Your task to perform on an android device: change your default location settings in chrome Image 0: 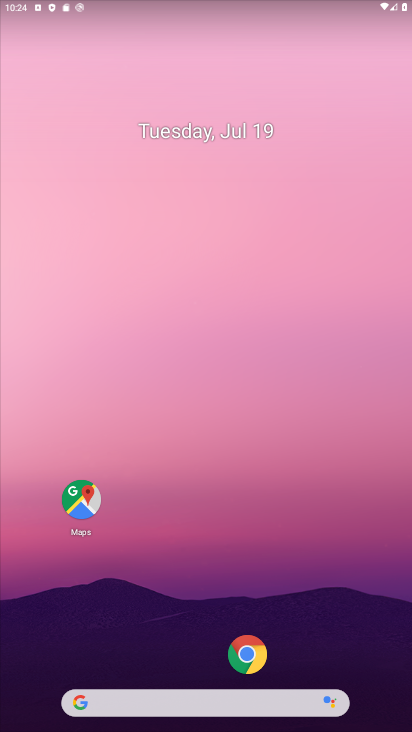
Step 0: click (244, 645)
Your task to perform on an android device: change your default location settings in chrome Image 1: 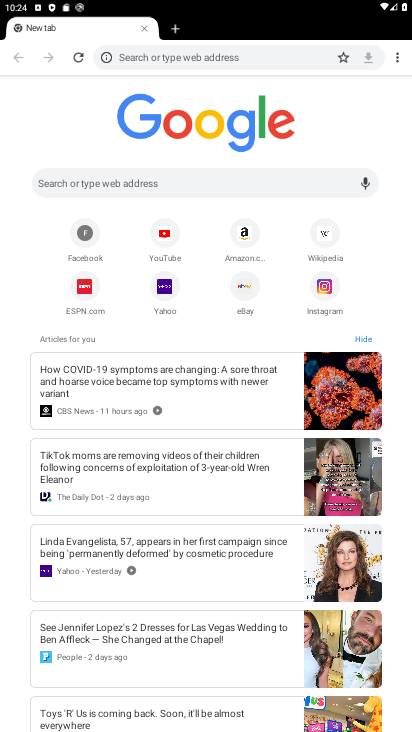
Step 1: click (401, 52)
Your task to perform on an android device: change your default location settings in chrome Image 2: 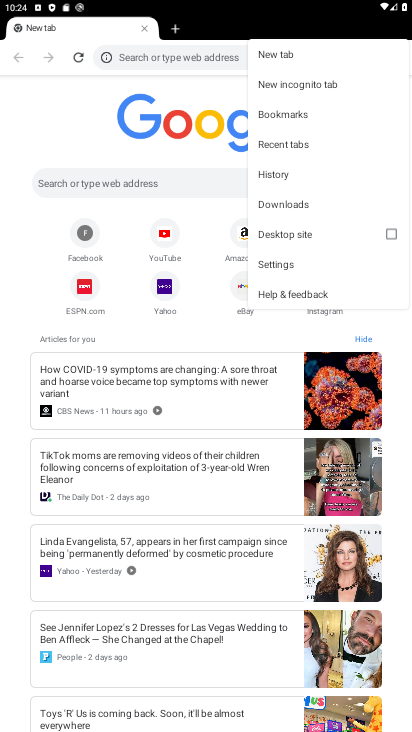
Step 2: click (288, 258)
Your task to perform on an android device: change your default location settings in chrome Image 3: 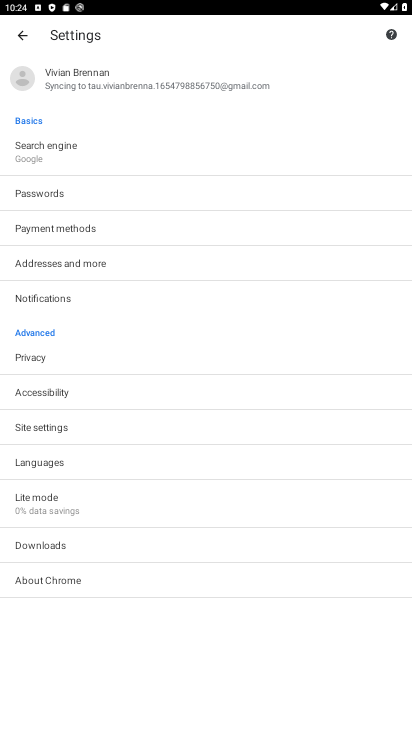
Step 3: click (31, 432)
Your task to perform on an android device: change your default location settings in chrome Image 4: 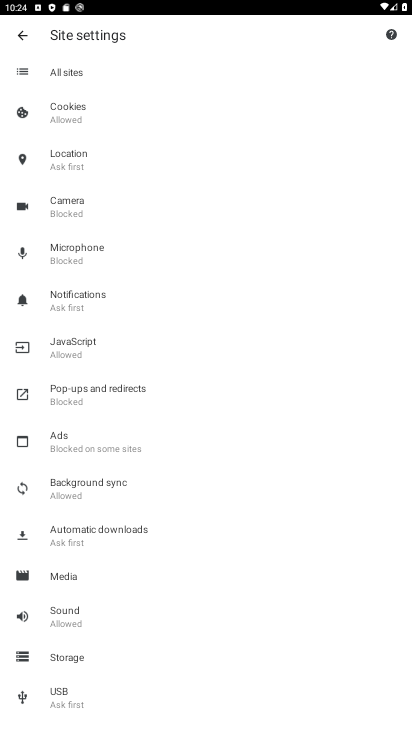
Step 4: click (90, 151)
Your task to perform on an android device: change your default location settings in chrome Image 5: 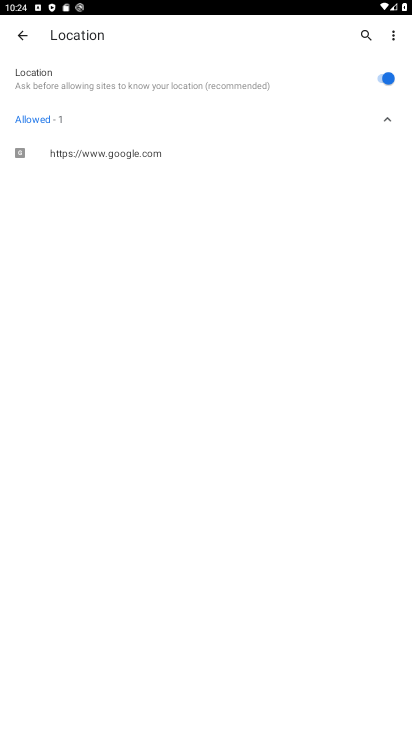
Step 5: click (390, 84)
Your task to perform on an android device: change your default location settings in chrome Image 6: 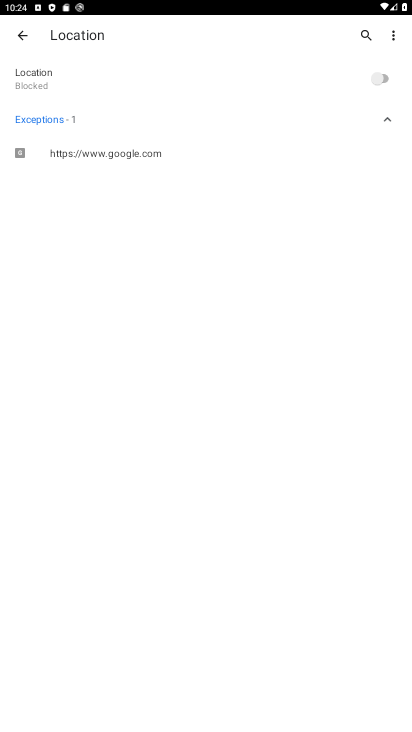
Step 6: task complete